Your task to perform on an android device: What's on my calendar tomorrow? Image 0: 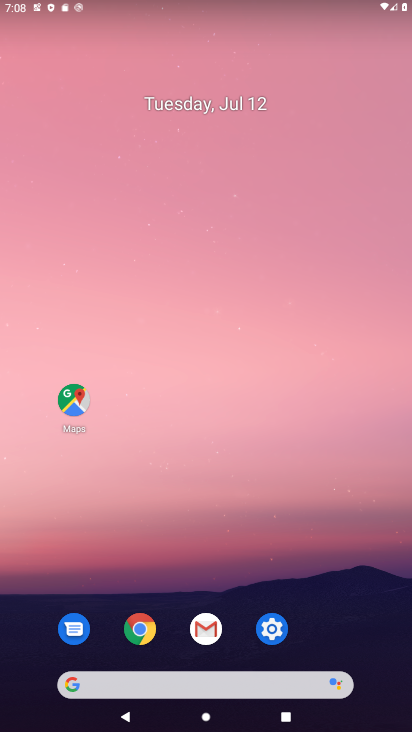
Step 0: drag from (260, 704) to (340, 141)
Your task to perform on an android device: What's on my calendar tomorrow? Image 1: 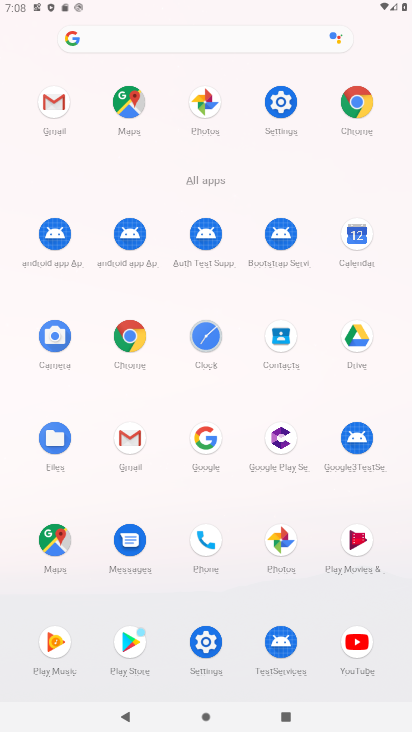
Step 1: click (351, 244)
Your task to perform on an android device: What's on my calendar tomorrow? Image 2: 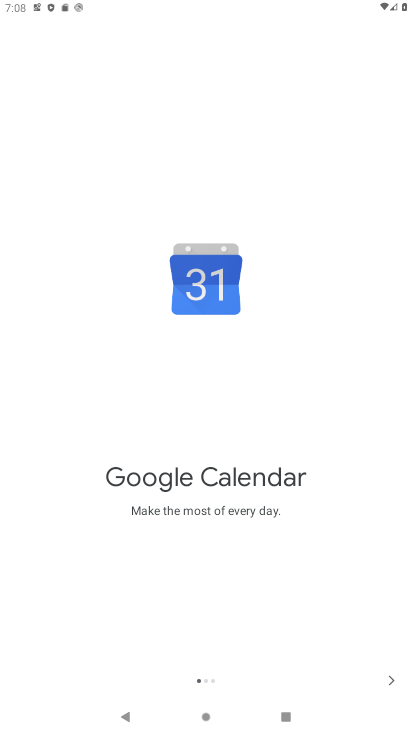
Step 2: click (389, 676)
Your task to perform on an android device: What's on my calendar tomorrow? Image 3: 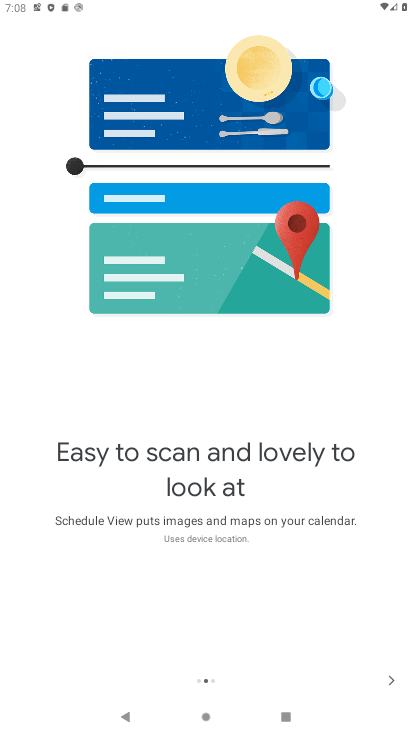
Step 3: click (386, 683)
Your task to perform on an android device: What's on my calendar tomorrow? Image 4: 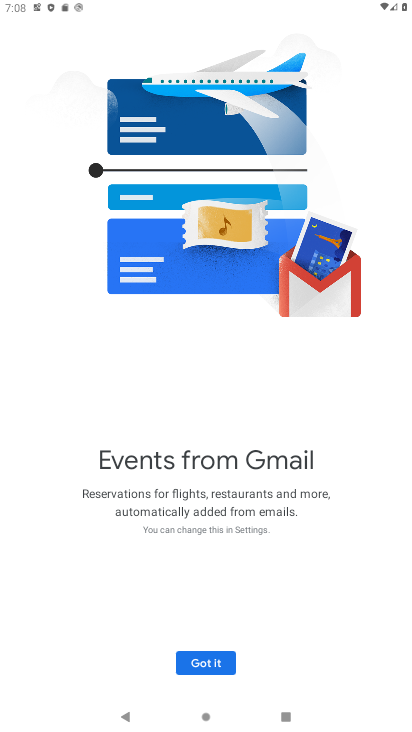
Step 4: click (220, 662)
Your task to perform on an android device: What's on my calendar tomorrow? Image 5: 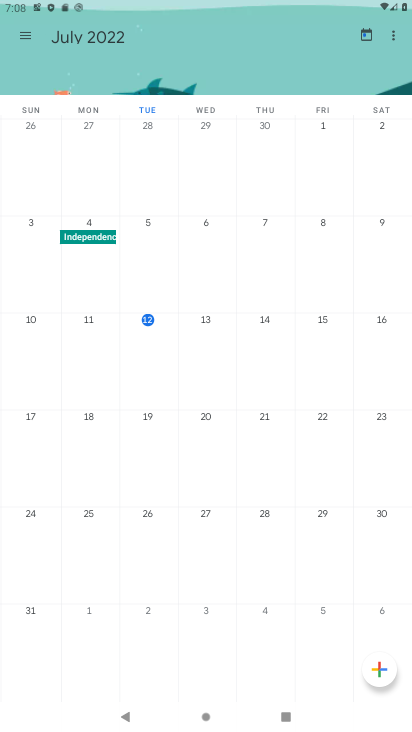
Step 5: click (206, 338)
Your task to perform on an android device: What's on my calendar tomorrow? Image 6: 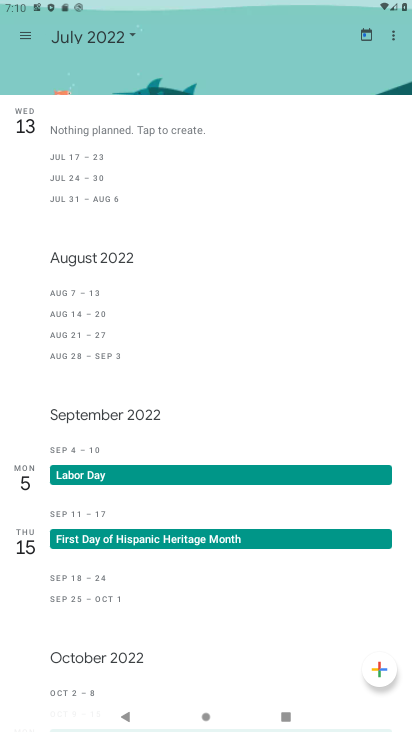
Step 6: task complete